Your task to perform on an android device: Open Reddit.com Image 0: 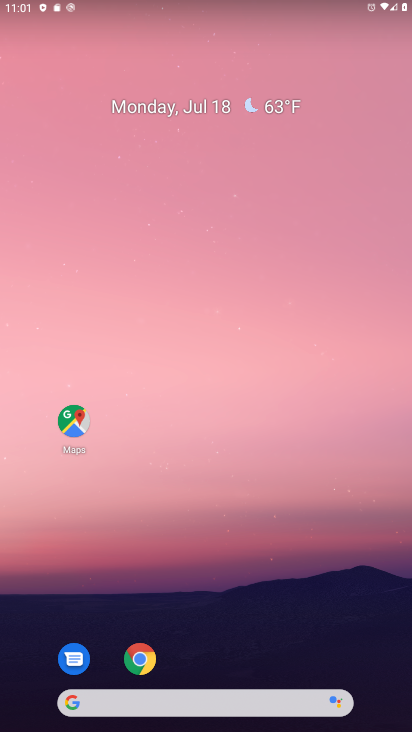
Step 0: drag from (216, 635) to (224, 132)
Your task to perform on an android device: Open Reddit.com Image 1: 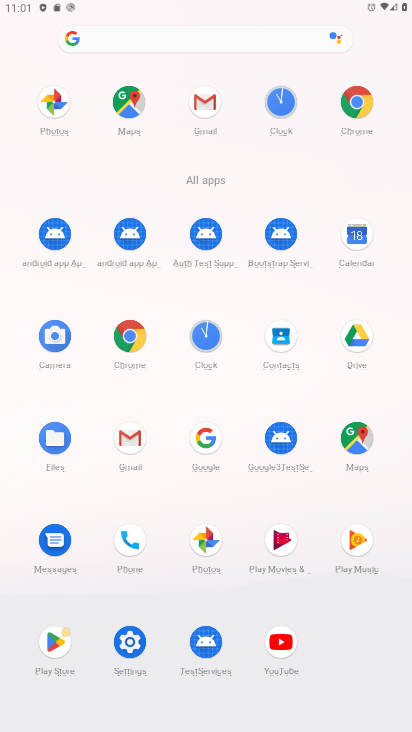
Step 1: click (207, 436)
Your task to perform on an android device: Open Reddit.com Image 2: 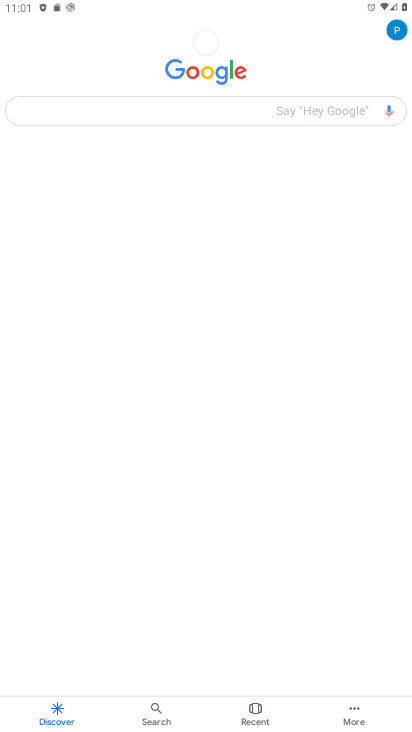
Step 2: click (163, 112)
Your task to perform on an android device: Open Reddit.com Image 3: 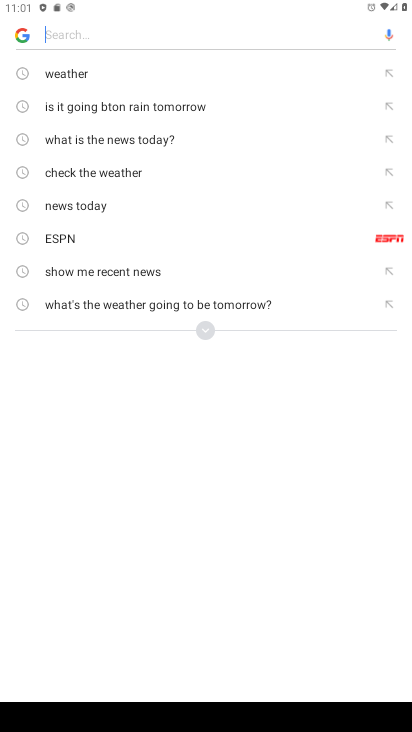
Step 3: type "reddit.com"
Your task to perform on an android device: Open Reddit.com Image 4: 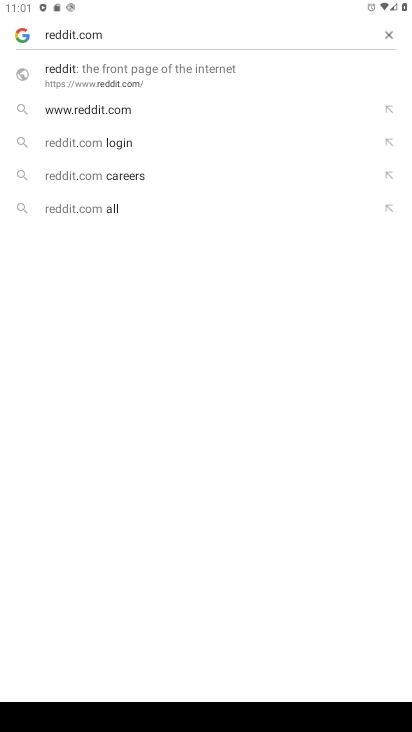
Step 4: click (120, 76)
Your task to perform on an android device: Open Reddit.com Image 5: 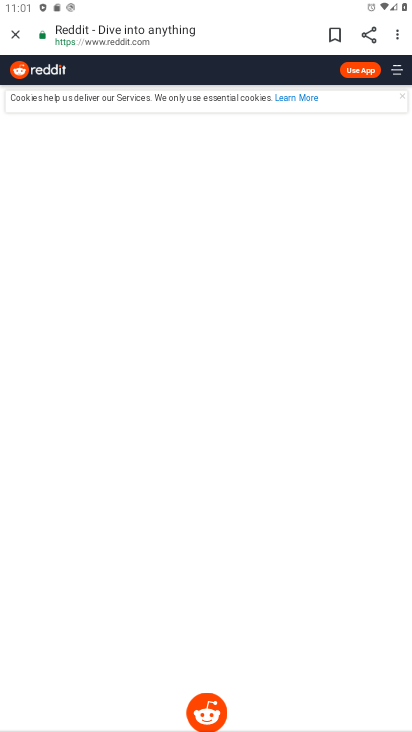
Step 5: task complete